Your task to perform on an android device: Show me the alarms in the clock app Image 0: 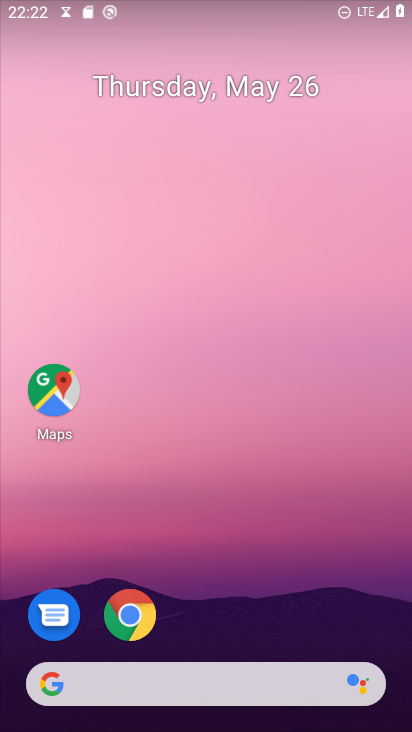
Step 0: drag from (279, 611) to (254, 312)
Your task to perform on an android device: Show me the alarms in the clock app Image 1: 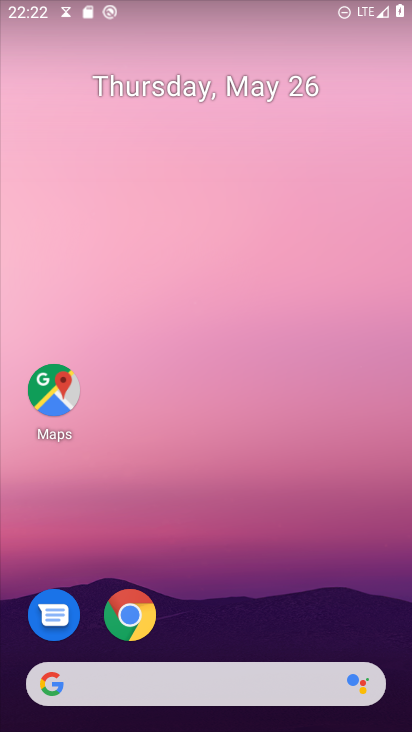
Step 1: drag from (227, 525) to (225, 249)
Your task to perform on an android device: Show me the alarms in the clock app Image 2: 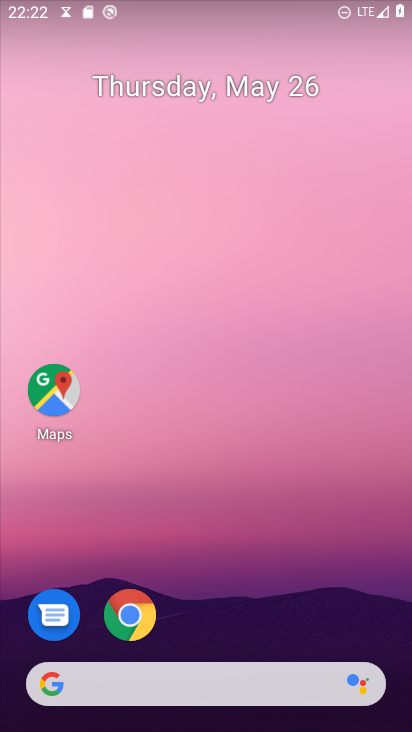
Step 2: drag from (236, 604) to (242, 263)
Your task to perform on an android device: Show me the alarms in the clock app Image 3: 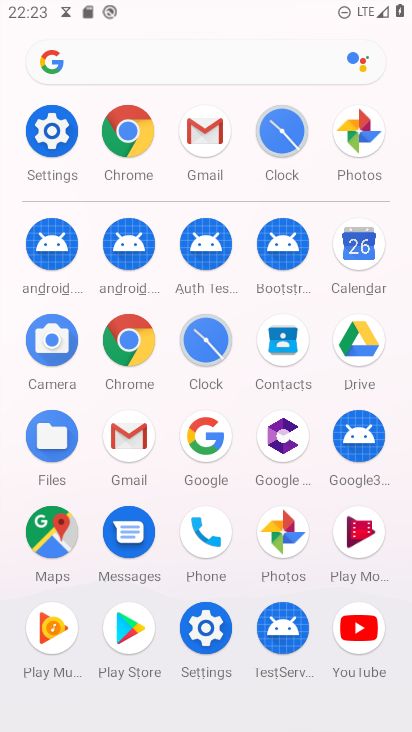
Step 3: click (208, 330)
Your task to perform on an android device: Show me the alarms in the clock app Image 4: 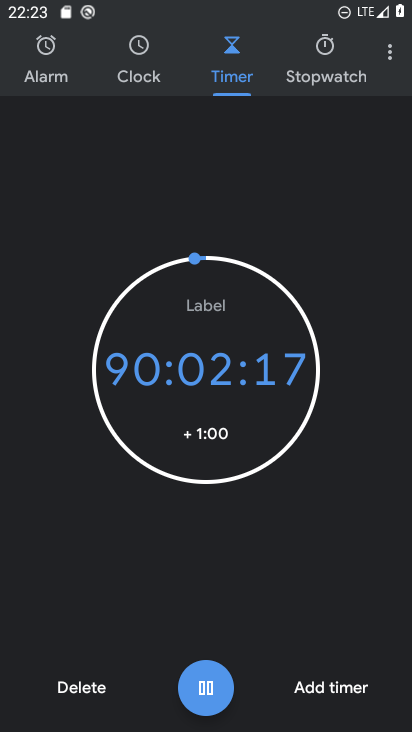
Step 4: click (43, 71)
Your task to perform on an android device: Show me the alarms in the clock app Image 5: 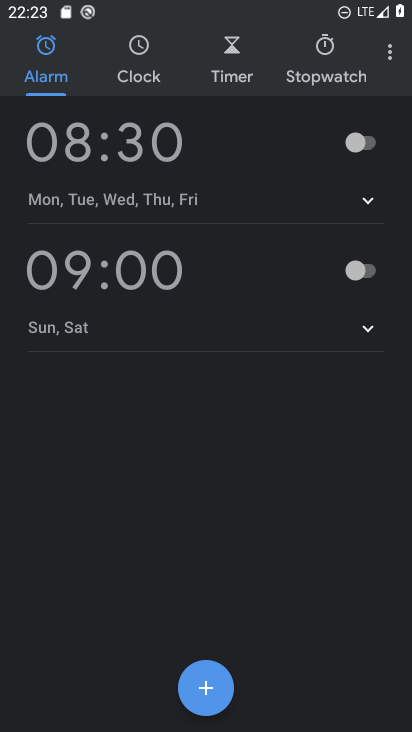
Step 5: task complete